Your task to perform on an android device: Go to privacy settings Image 0: 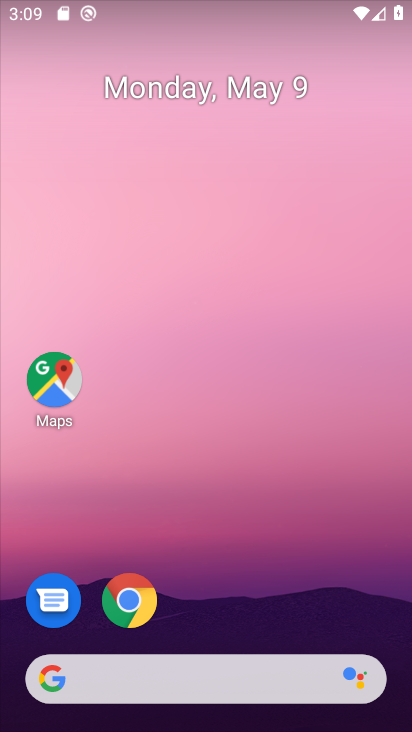
Step 0: drag from (240, 555) to (215, 208)
Your task to perform on an android device: Go to privacy settings Image 1: 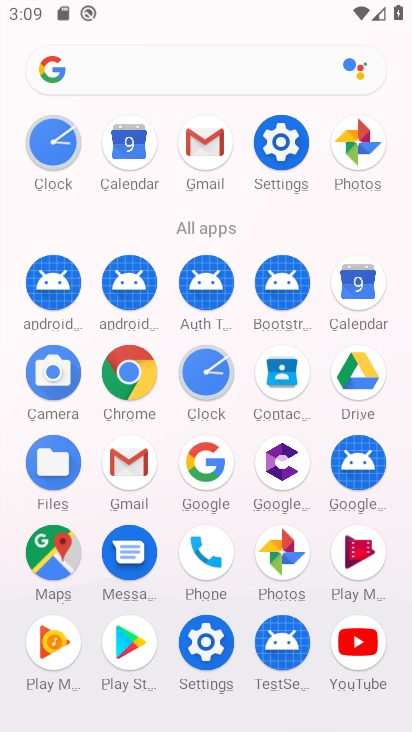
Step 1: click (280, 161)
Your task to perform on an android device: Go to privacy settings Image 2: 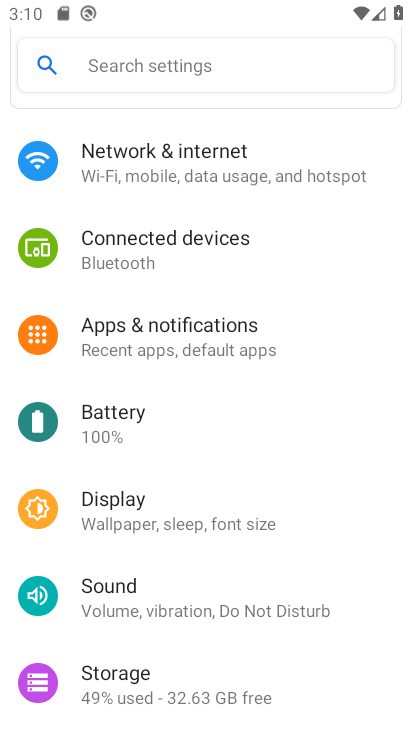
Step 2: drag from (200, 547) to (230, 204)
Your task to perform on an android device: Go to privacy settings Image 3: 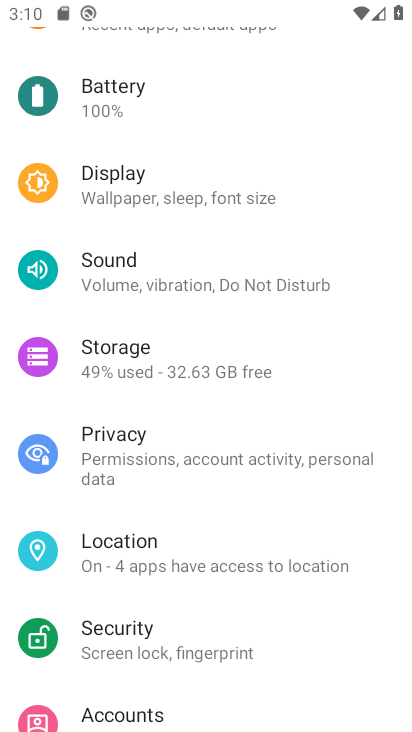
Step 3: click (217, 451)
Your task to perform on an android device: Go to privacy settings Image 4: 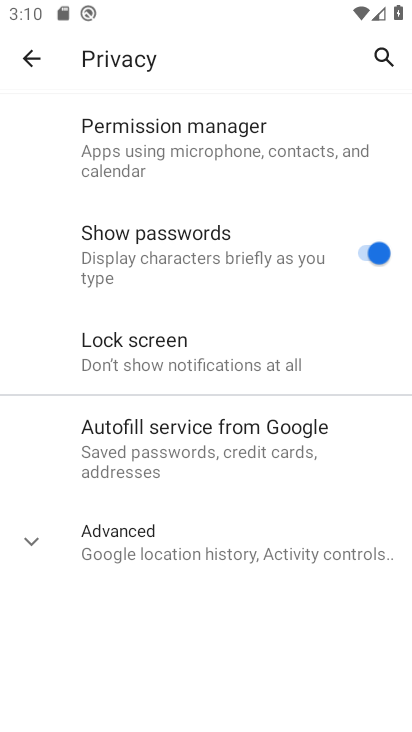
Step 4: task complete